Your task to perform on an android device: See recent photos Image 0: 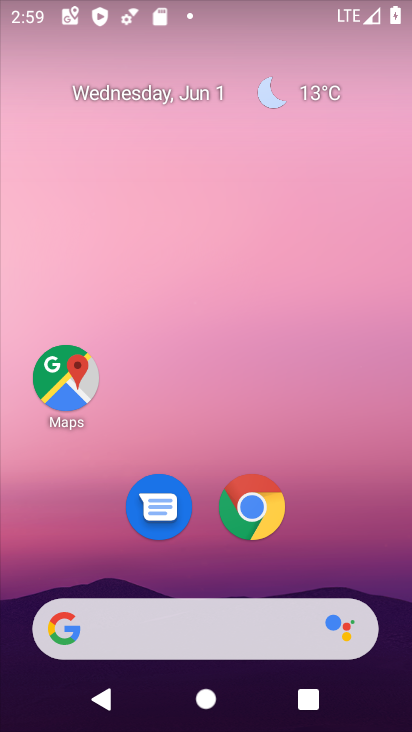
Step 0: drag from (330, 553) to (116, 193)
Your task to perform on an android device: See recent photos Image 1: 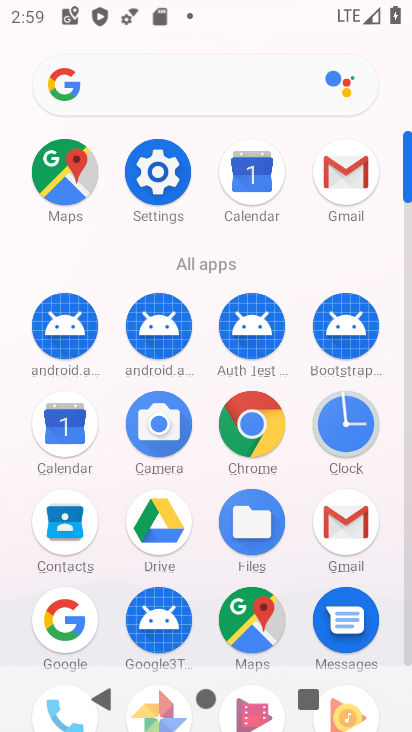
Step 1: drag from (207, 593) to (195, 357)
Your task to perform on an android device: See recent photos Image 2: 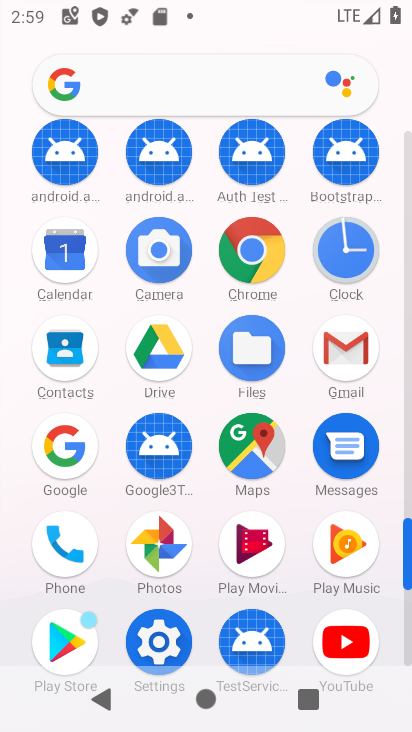
Step 2: click (153, 542)
Your task to perform on an android device: See recent photos Image 3: 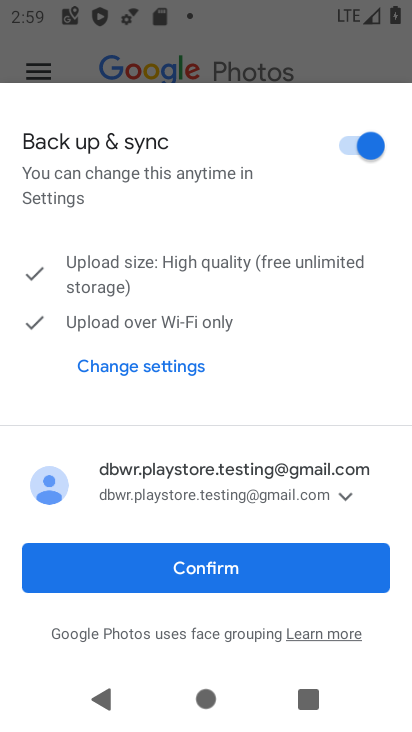
Step 3: click (159, 568)
Your task to perform on an android device: See recent photos Image 4: 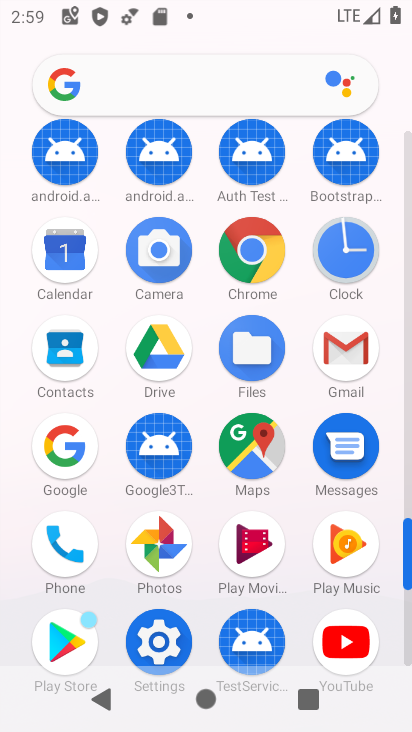
Step 4: click (159, 568)
Your task to perform on an android device: See recent photos Image 5: 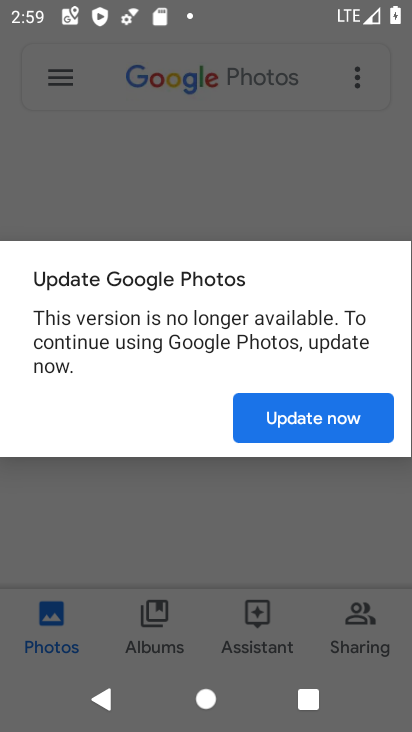
Step 5: click (300, 410)
Your task to perform on an android device: See recent photos Image 6: 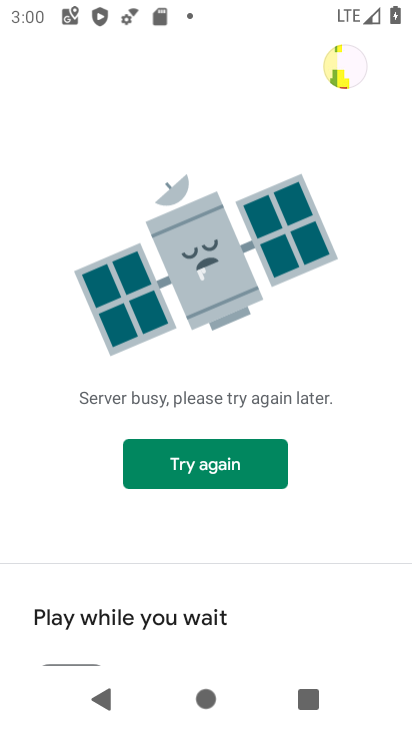
Step 6: task complete